Your task to perform on an android device: Open the web browser Image 0: 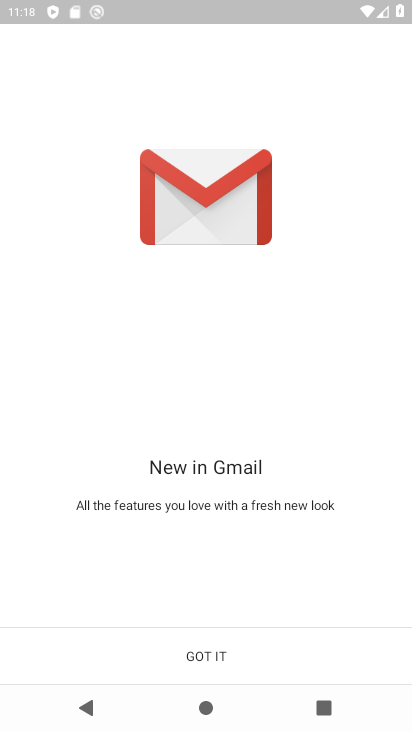
Step 0: press home button
Your task to perform on an android device: Open the web browser Image 1: 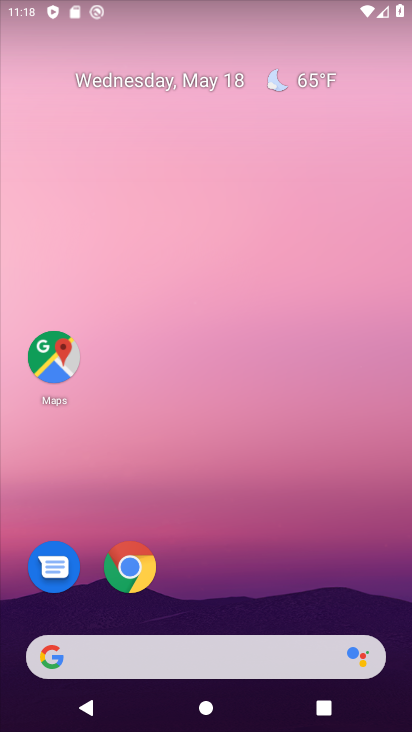
Step 1: click (135, 569)
Your task to perform on an android device: Open the web browser Image 2: 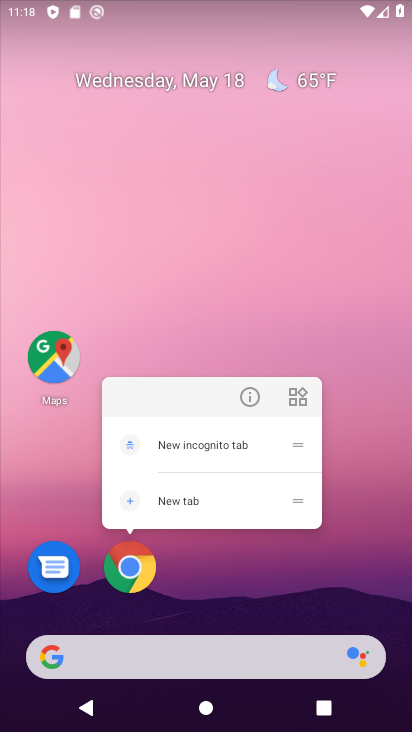
Step 2: click (130, 568)
Your task to perform on an android device: Open the web browser Image 3: 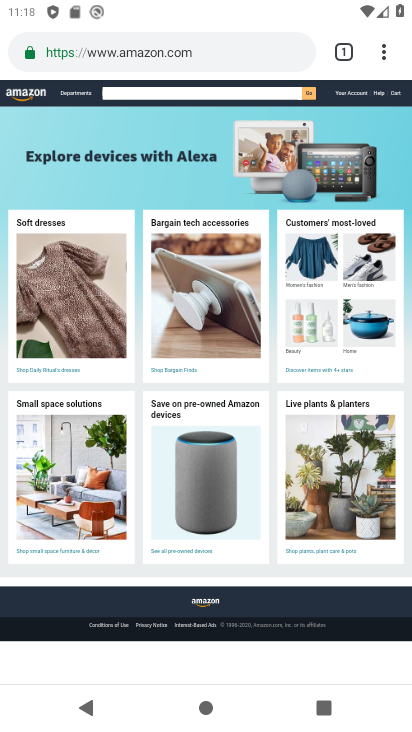
Step 3: task complete